Your task to perform on an android device: Open notification settings Image 0: 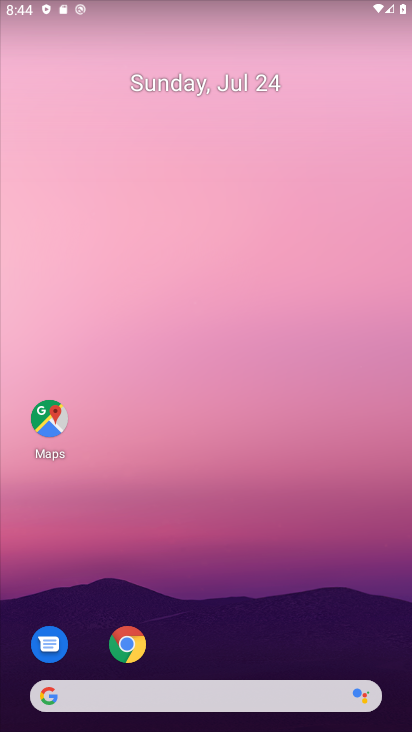
Step 0: drag from (241, 644) to (226, 64)
Your task to perform on an android device: Open notification settings Image 1: 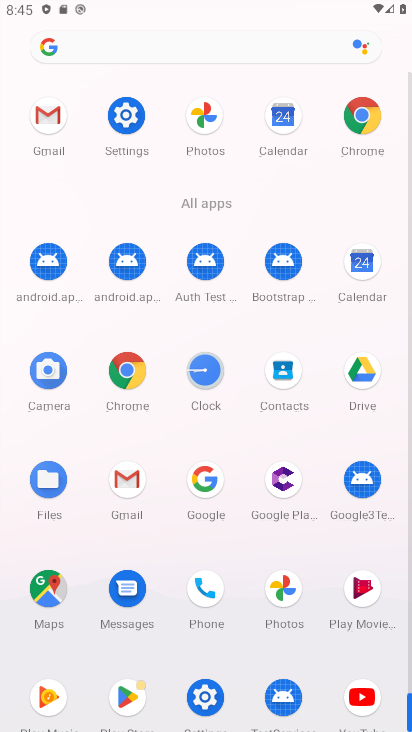
Step 1: click (122, 103)
Your task to perform on an android device: Open notification settings Image 2: 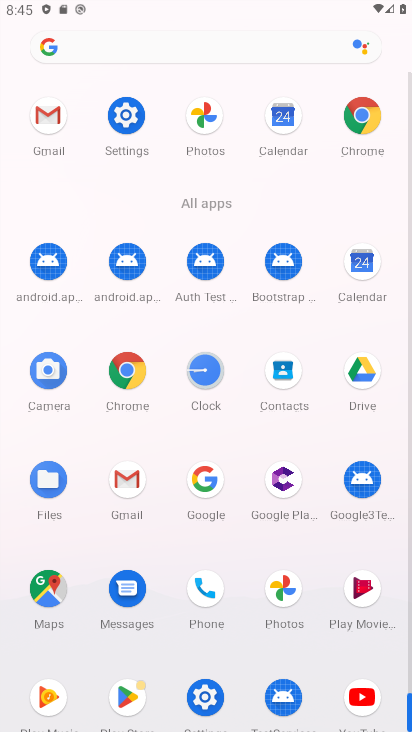
Step 2: click (123, 114)
Your task to perform on an android device: Open notification settings Image 3: 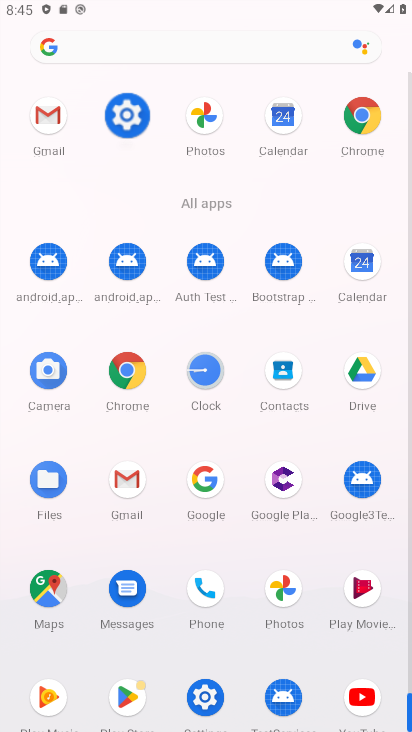
Step 3: click (123, 114)
Your task to perform on an android device: Open notification settings Image 4: 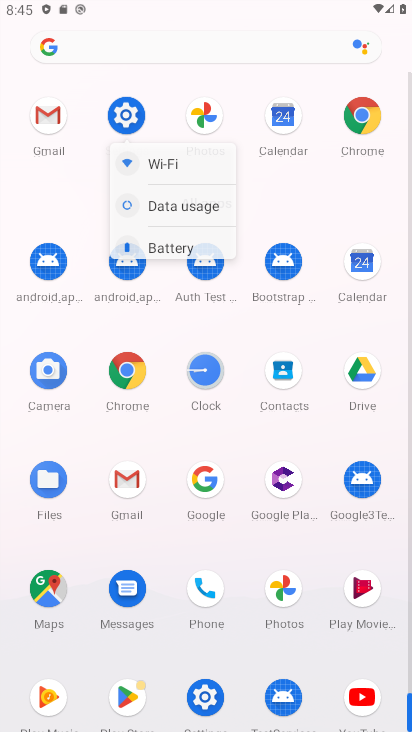
Step 4: click (123, 114)
Your task to perform on an android device: Open notification settings Image 5: 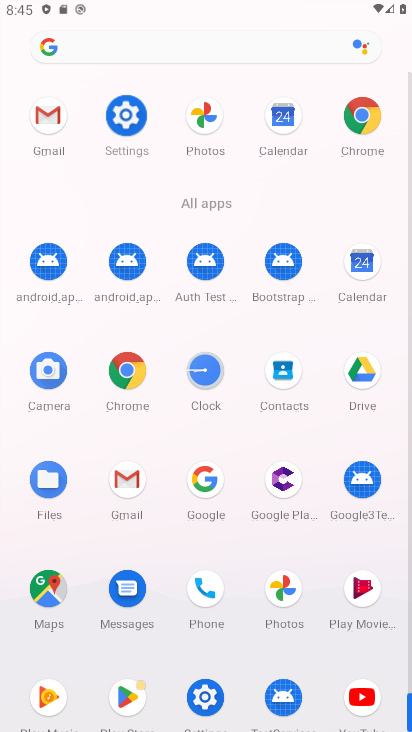
Step 5: click (123, 114)
Your task to perform on an android device: Open notification settings Image 6: 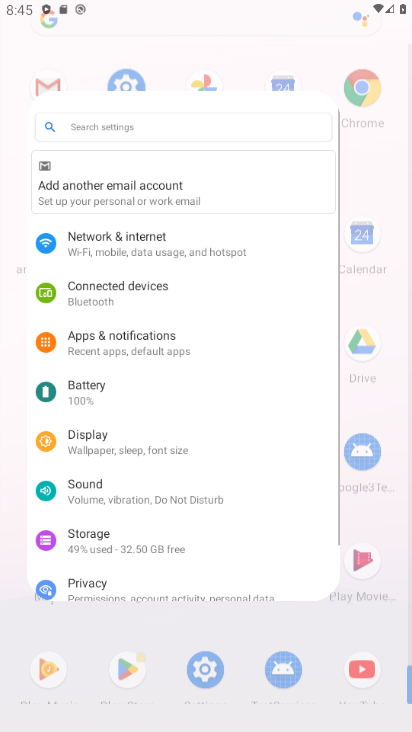
Step 6: click (123, 114)
Your task to perform on an android device: Open notification settings Image 7: 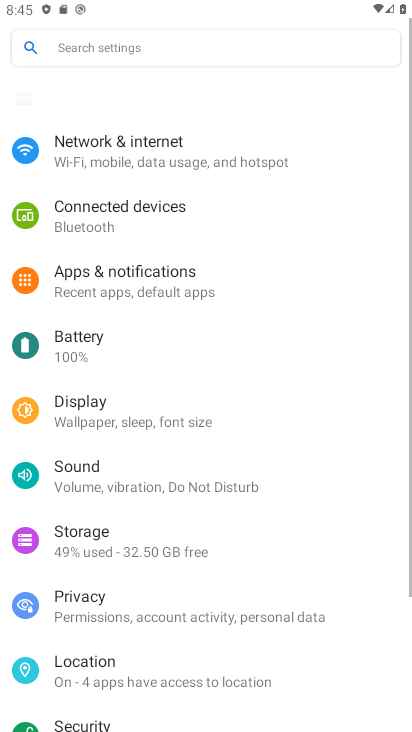
Step 7: click (123, 114)
Your task to perform on an android device: Open notification settings Image 8: 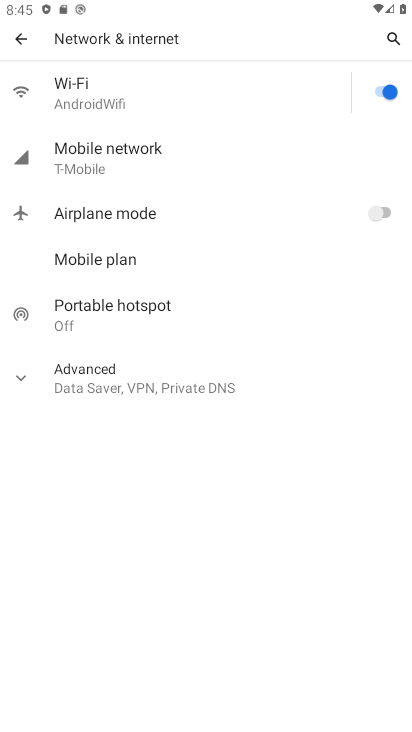
Step 8: click (19, 41)
Your task to perform on an android device: Open notification settings Image 9: 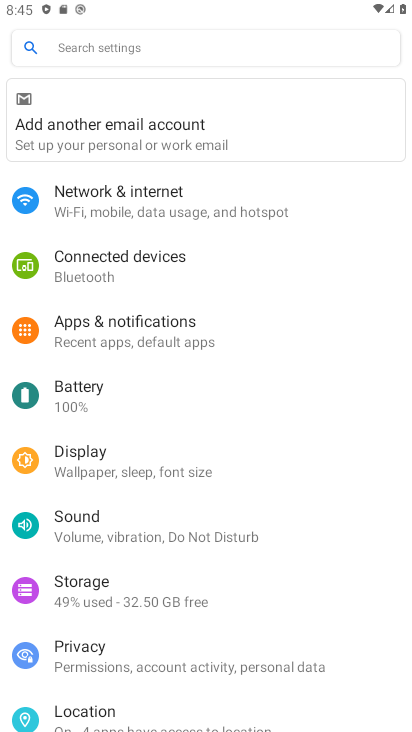
Step 9: click (148, 324)
Your task to perform on an android device: Open notification settings Image 10: 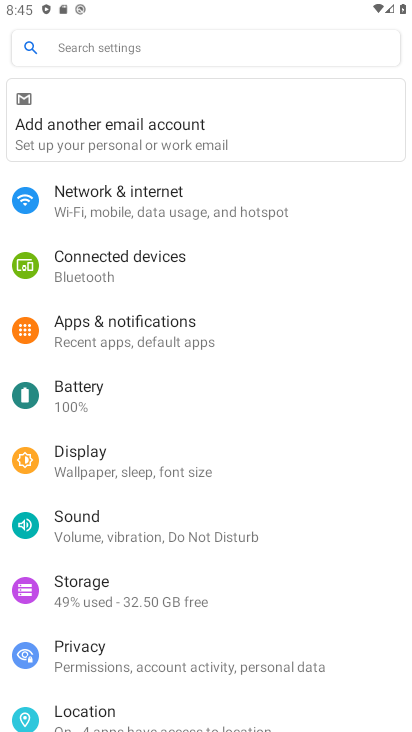
Step 10: click (148, 324)
Your task to perform on an android device: Open notification settings Image 11: 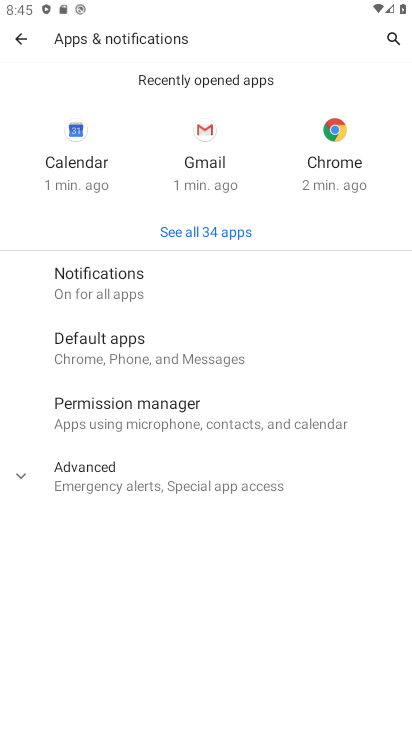
Step 11: task complete